Your task to perform on an android device: Go to sound settings Image 0: 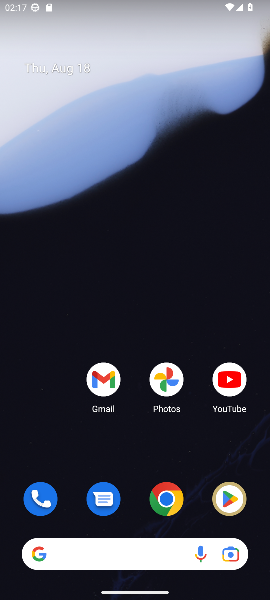
Step 0: drag from (144, 477) to (103, 115)
Your task to perform on an android device: Go to sound settings Image 1: 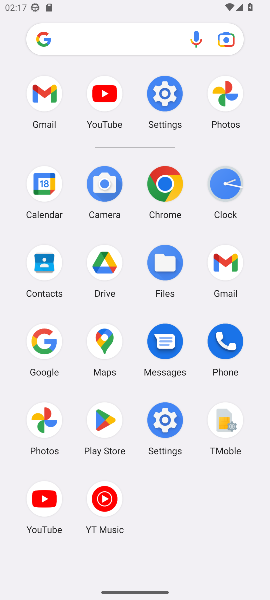
Step 1: click (166, 422)
Your task to perform on an android device: Go to sound settings Image 2: 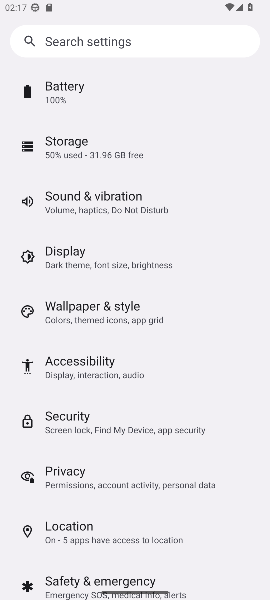
Step 2: click (66, 200)
Your task to perform on an android device: Go to sound settings Image 3: 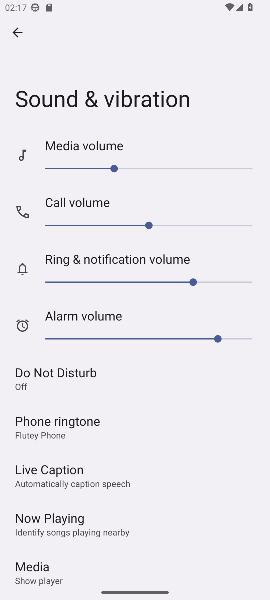
Step 3: task complete